Your task to perform on an android device: What's the weather today? Image 0: 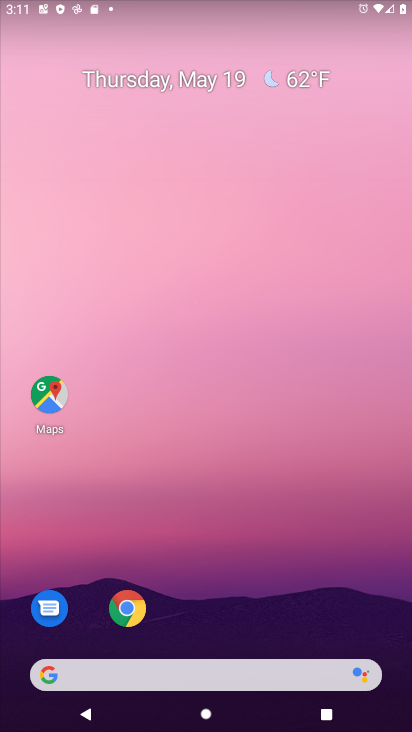
Step 0: click (230, 673)
Your task to perform on an android device: What's the weather today? Image 1: 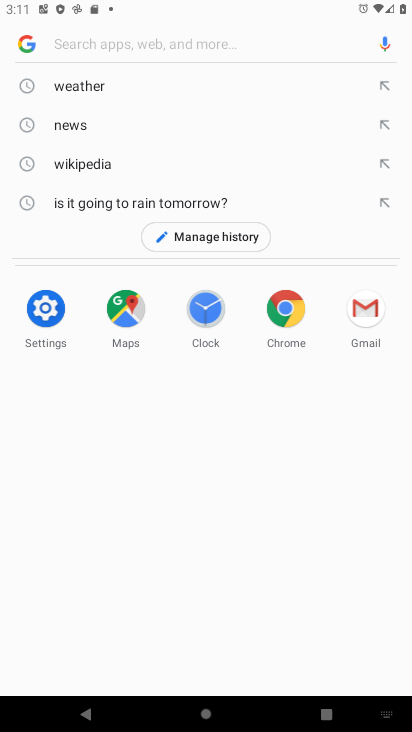
Step 1: click (194, 75)
Your task to perform on an android device: What's the weather today? Image 2: 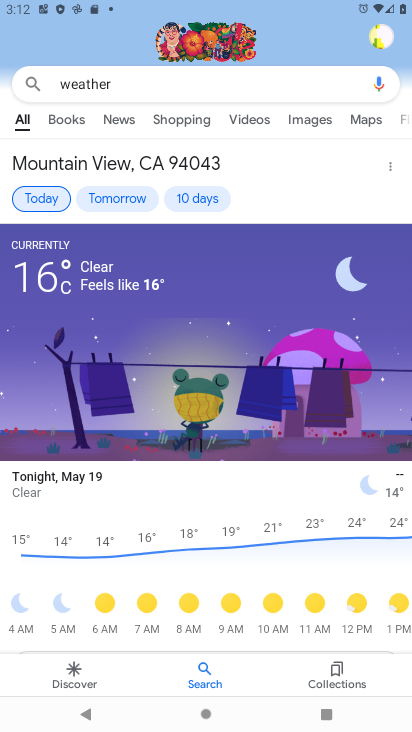
Step 2: task complete